Your task to perform on an android device: Go to Google Image 0: 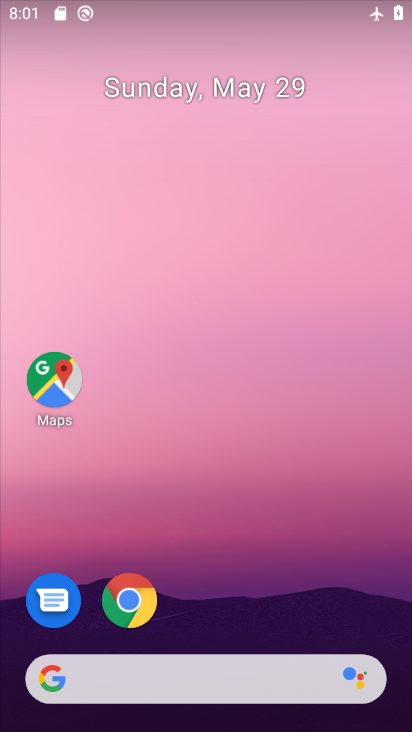
Step 0: click (148, 680)
Your task to perform on an android device: Go to Google Image 1: 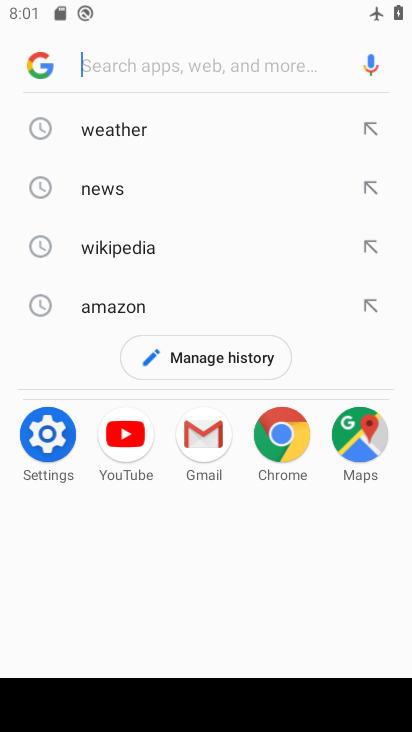
Step 1: click (52, 60)
Your task to perform on an android device: Go to Google Image 2: 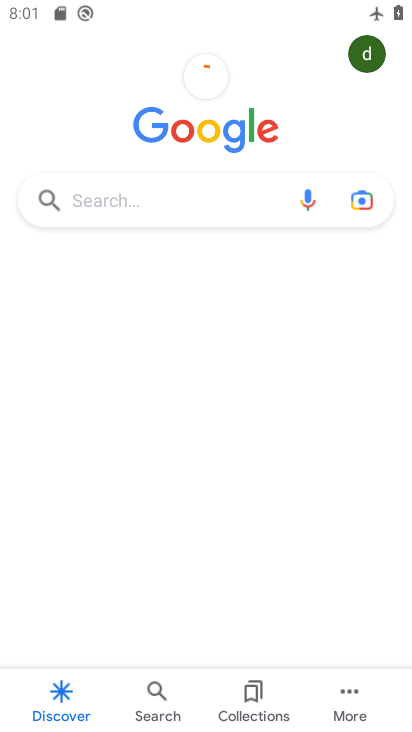
Step 2: task complete